Your task to perform on an android device: change keyboard looks Image 0: 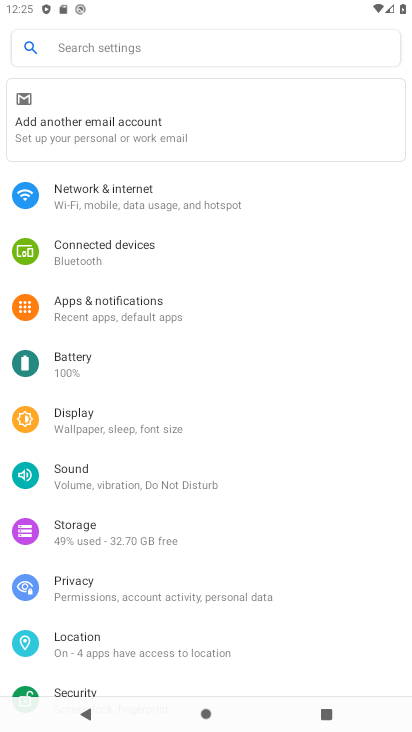
Step 0: drag from (261, 661) to (259, 166)
Your task to perform on an android device: change keyboard looks Image 1: 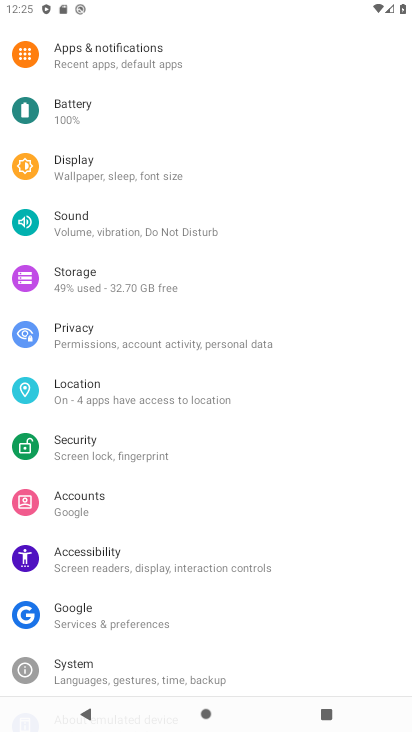
Step 1: click (241, 669)
Your task to perform on an android device: change keyboard looks Image 2: 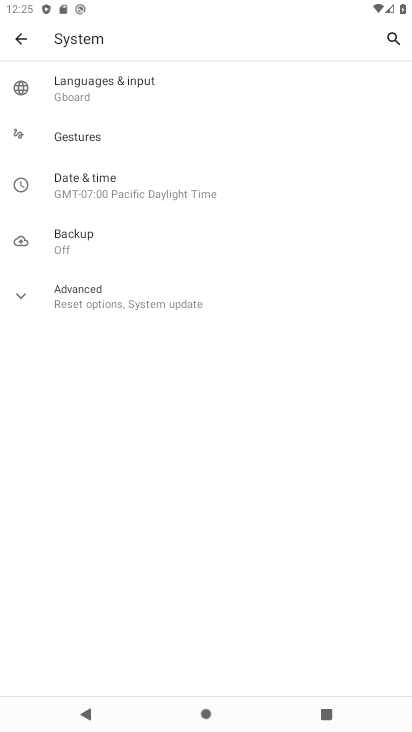
Step 2: click (217, 82)
Your task to perform on an android device: change keyboard looks Image 3: 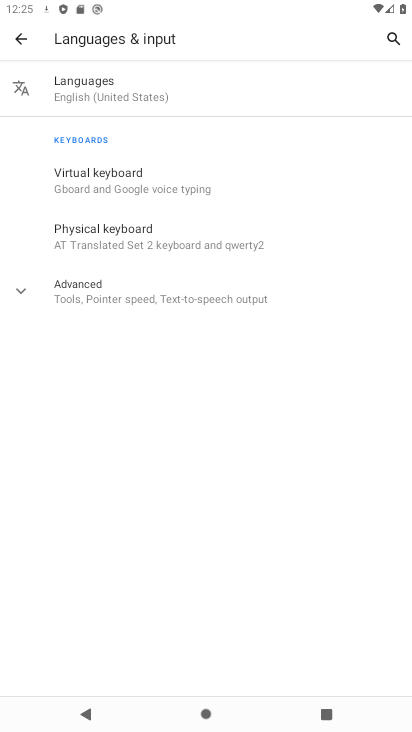
Step 3: click (194, 191)
Your task to perform on an android device: change keyboard looks Image 4: 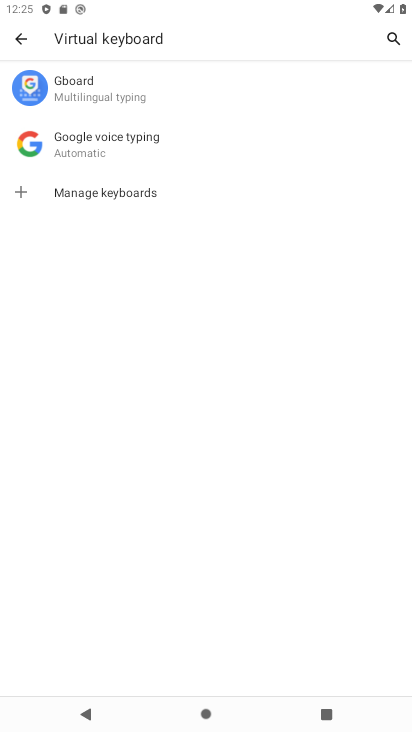
Step 4: click (174, 91)
Your task to perform on an android device: change keyboard looks Image 5: 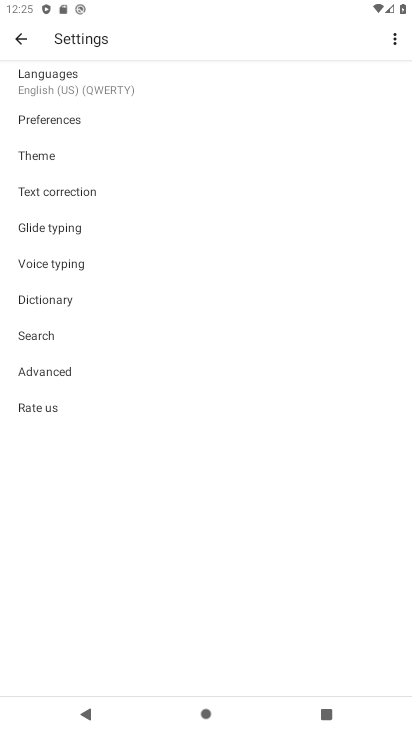
Step 5: click (114, 161)
Your task to perform on an android device: change keyboard looks Image 6: 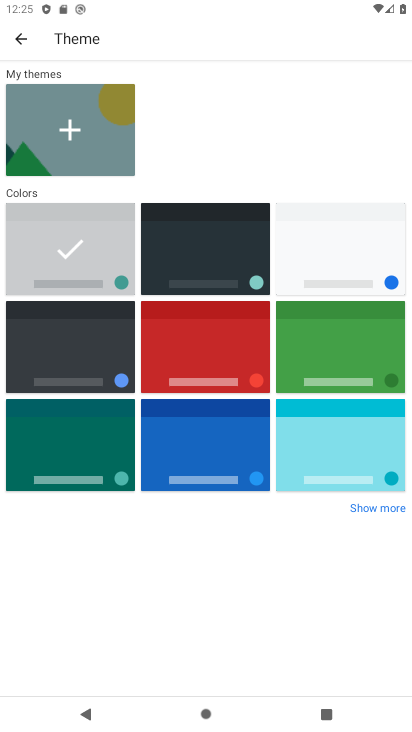
Step 6: click (211, 297)
Your task to perform on an android device: change keyboard looks Image 7: 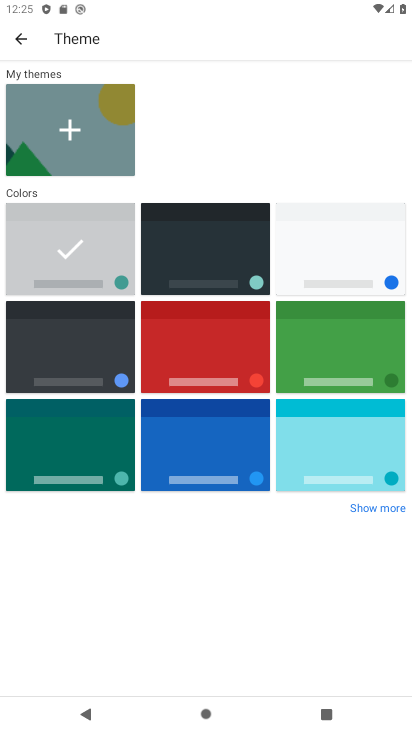
Step 7: click (210, 280)
Your task to perform on an android device: change keyboard looks Image 8: 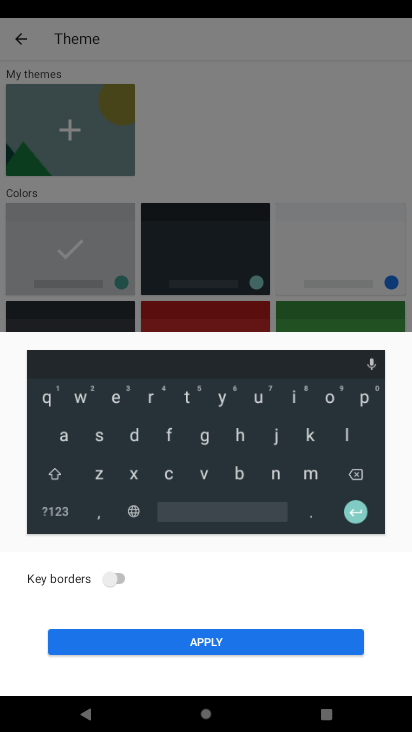
Step 8: click (248, 650)
Your task to perform on an android device: change keyboard looks Image 9: 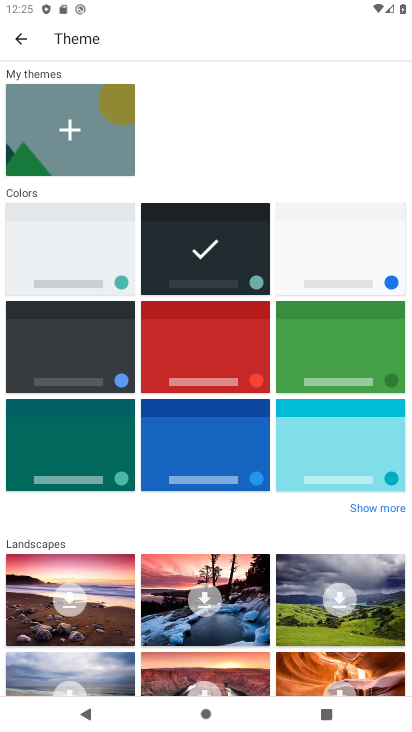
Step 9: task complete